Your task to perform on an android device: Open calendar and show me the fourth week of next month Image 0: 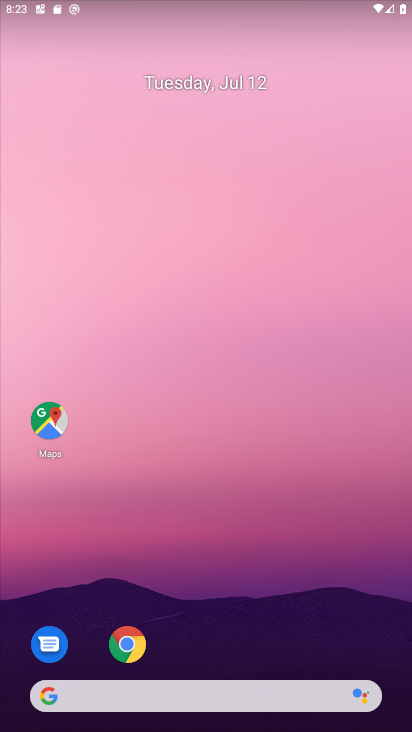
Step 0: drag from (297, 637) to (288, 28)
Your task to perform on an android device: Open calendar and show me the fourth week of next month Image 1: 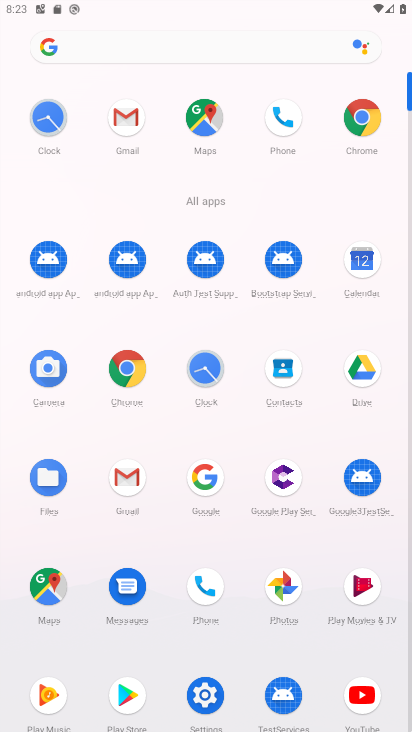
Step 1: click (381, 294)
Your task to perform on an android device: Open calendar and show me the fourth week of next month Image 2: 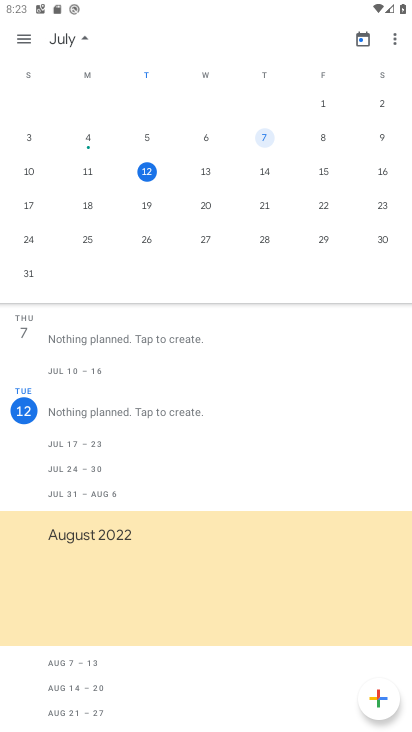
Step 2: drag from (386, 208) to (6, 182)
Your task to perform on an android device: Open calendar and show me the fourth week of next month Image 3: 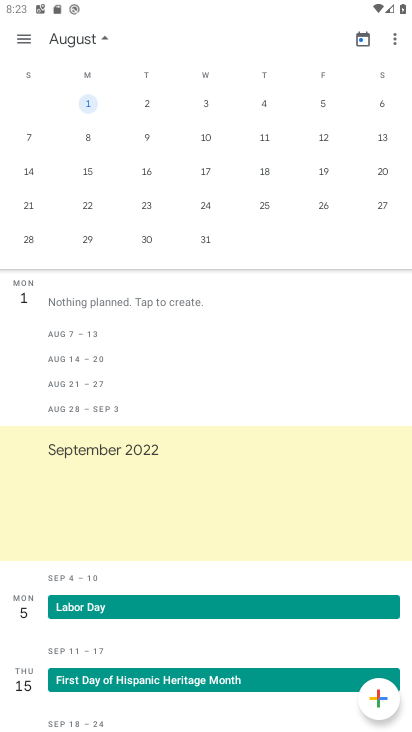
Step 3: click (32, 246)
Your task to perform on an android device: Open calendar and show me the fourth week of next month Image 4: 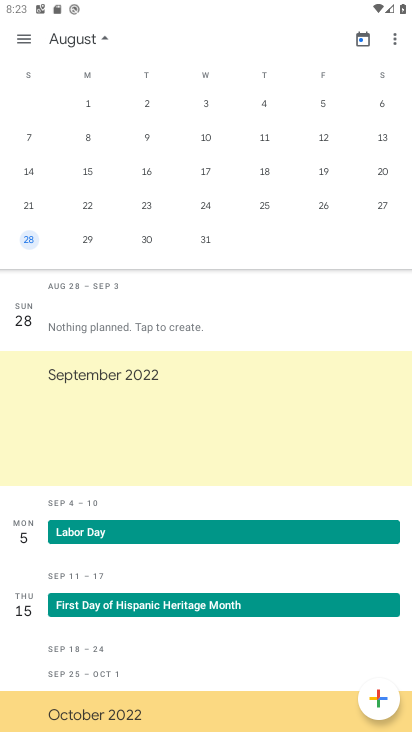
Step 4: task complete